Your task to perform on an android device: toggle airplane mode Image 0: 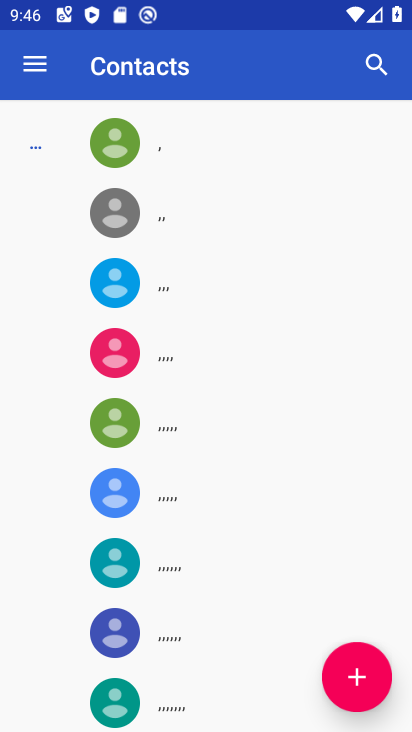
Step 0: press home button
Your task to perform on an android device: toggle airplane mode Image 1: 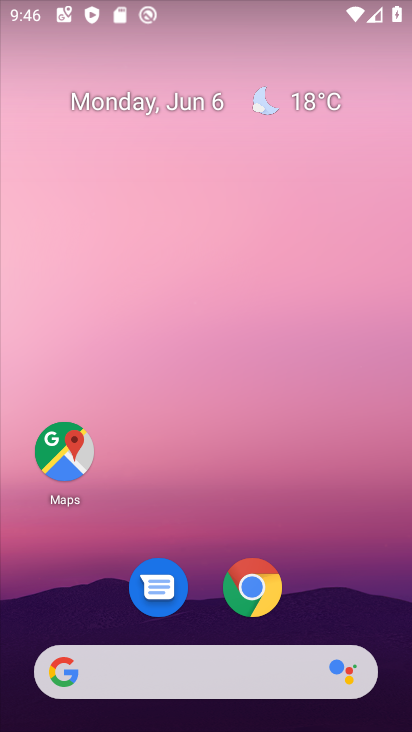
Step 1: drag from (344, 573) to (344, 219)
Your task to perform on an android device: toggle airplane mode Image 2: 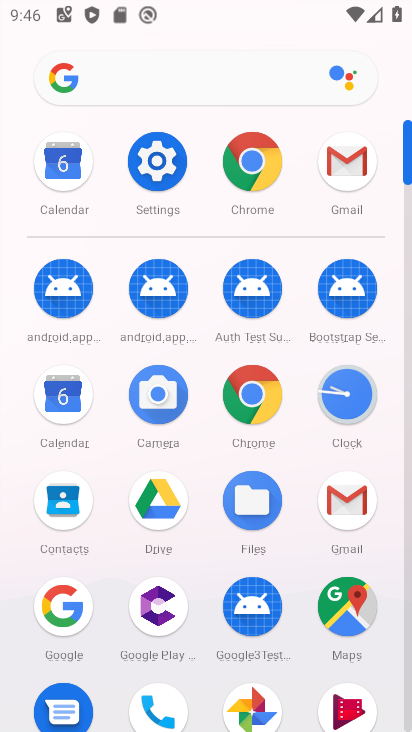
Step 2: click (178, 159)
Your task to perform on an android device: toggle airplane mode Image 3: 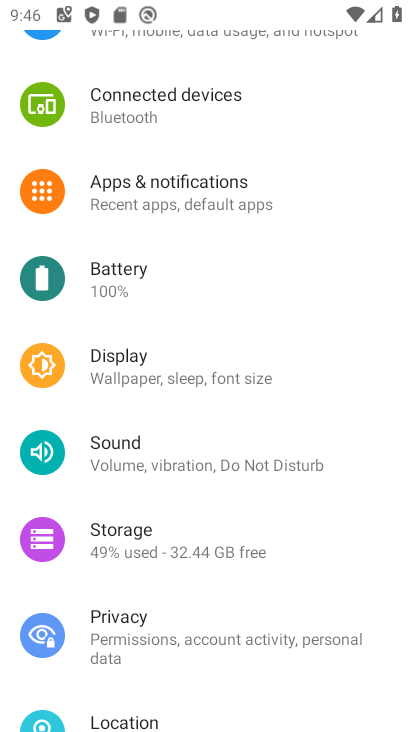
Step 3: drag from (200, 134) to (192, 507)
Your task to perform on an android device: toggle airplane mode Image 4: 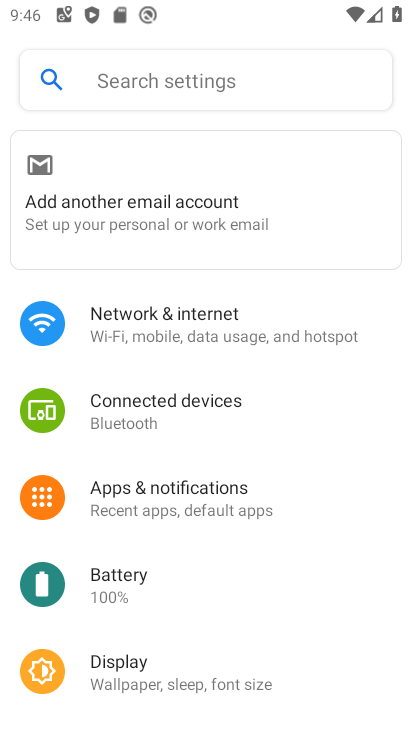
Step 4: click (141, 324)
Your task to perform on an android device: toggle airplane mode Image 5: 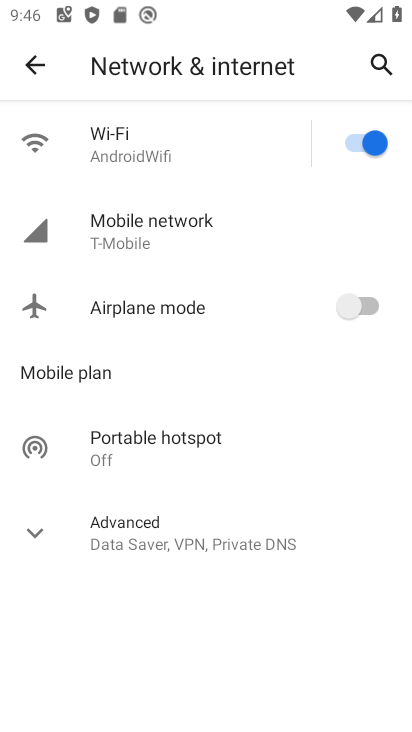
Step 5: click (351, 315)
Your task to perform on an android device: toggle airplane mode Image 6: 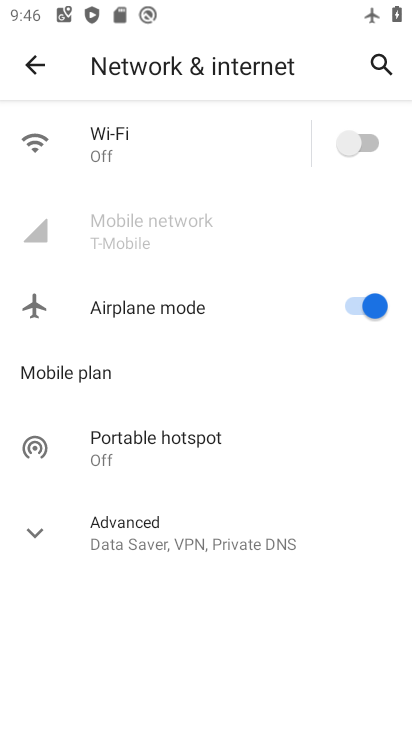
Step 6: task complete